Your task to perform on an android device: change the clock display to analog Image 0: 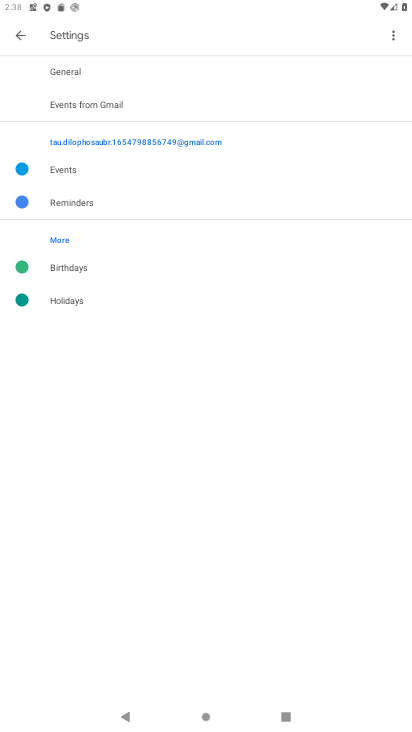
Step 0: press home button
Your task to perform on an android device: change the clock display to analog Image 1: 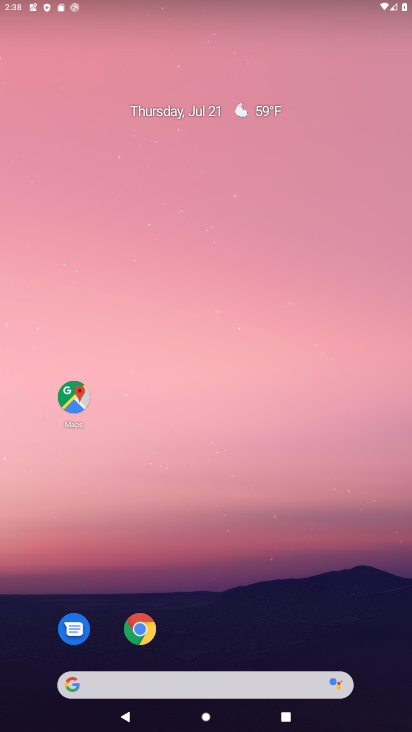
Step 1: drag from (231, 729) to (225, 75)
Your task to perform on an android device: change the clock display to analog Image 2: 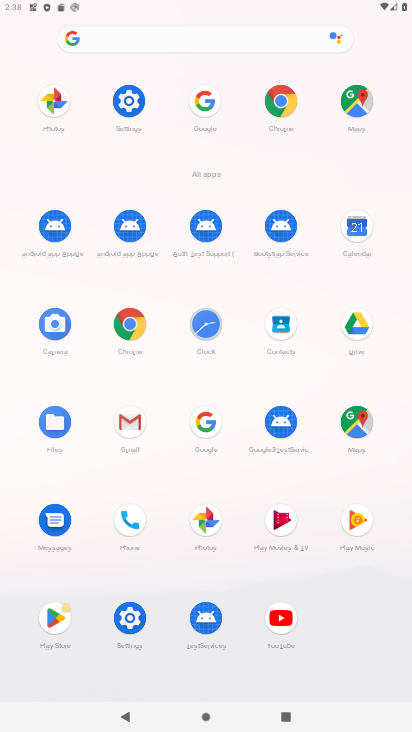
Step 2: click (205, 330)
Your task to perform on an android device: change the clock display to analog Image 3: 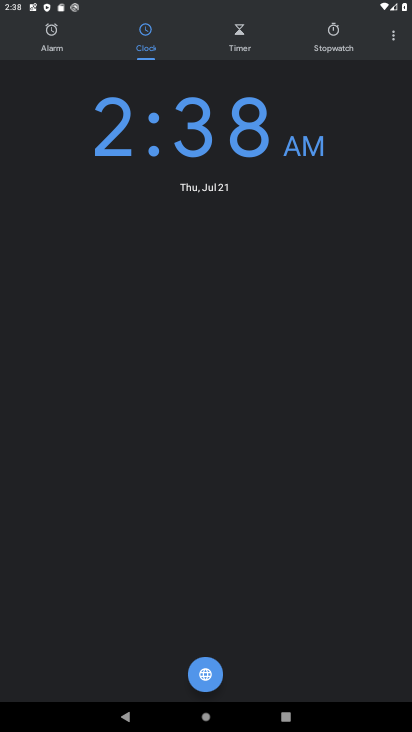
Step 3: click (395, 43)
Your task to perform on an android device: change the clock display to analog Image 4: 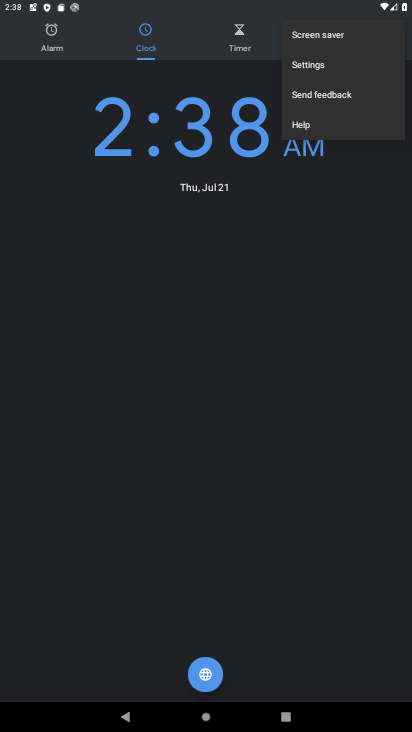
Step 4: click (311, 71)
Your task to perform on an android device: change the clock display to analog Image 5: 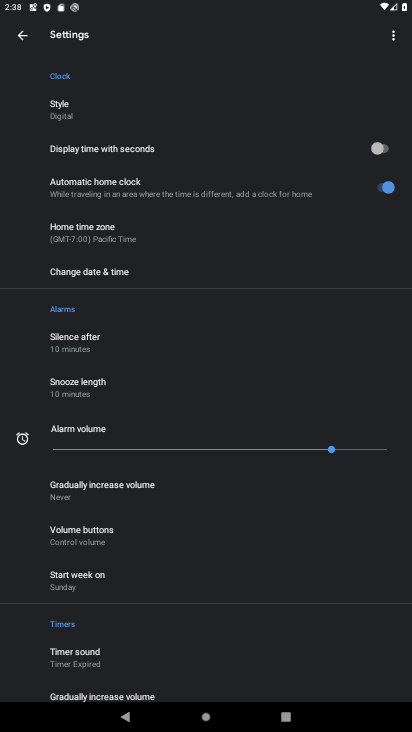
Step 5: click (64, 107)
Your task to perform on an android device: change the clock display to analog Image 6: 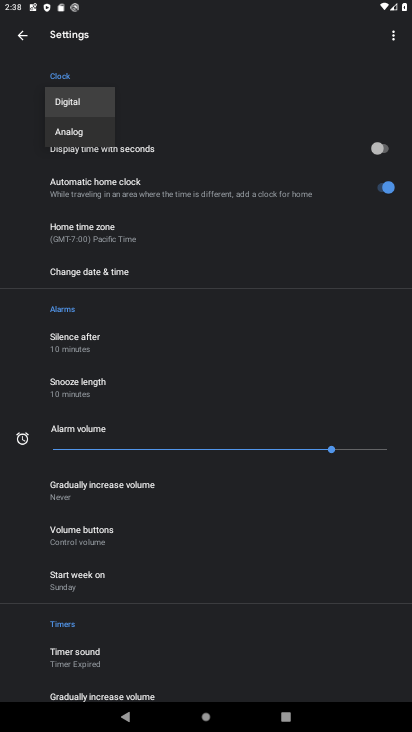
Step 6: click (73, 133)
Your task to perform on an android device: change the clock display to analog Image 7: 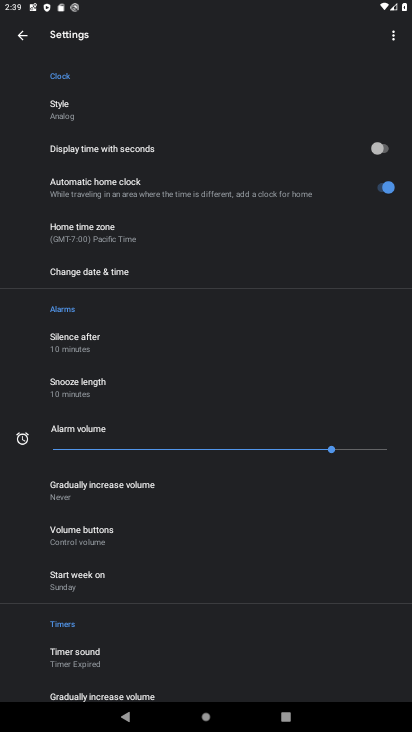
Step 7: task complete